Your task to perform on an android device: Find coffee shops on Maps Image 0: 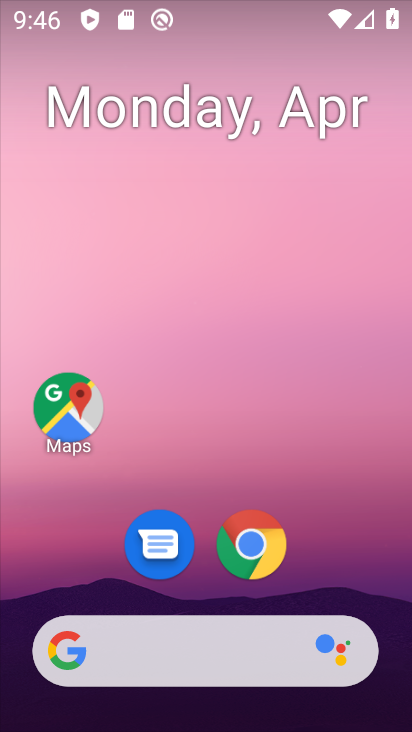
Step 0: drag from (285, 557) to (346, 216)
Your task to perform on an android device: Find coffee shops on Maps Image 1: 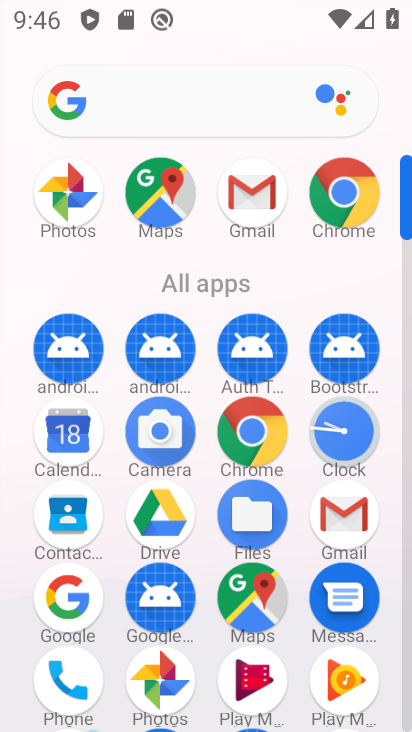
Step 1: click (243, 581)
Your task to perform on an android device: Find coffee shops on Maps Image 2: 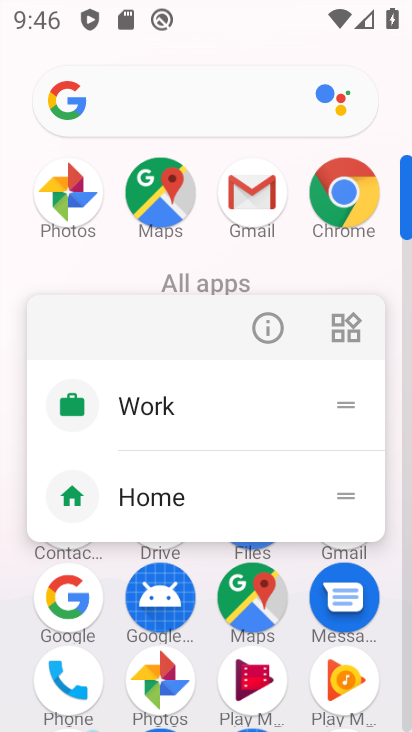
Step 2: click (244, 580)
Your task to perform on an android device: Find coffee shops on Maps Image 3: 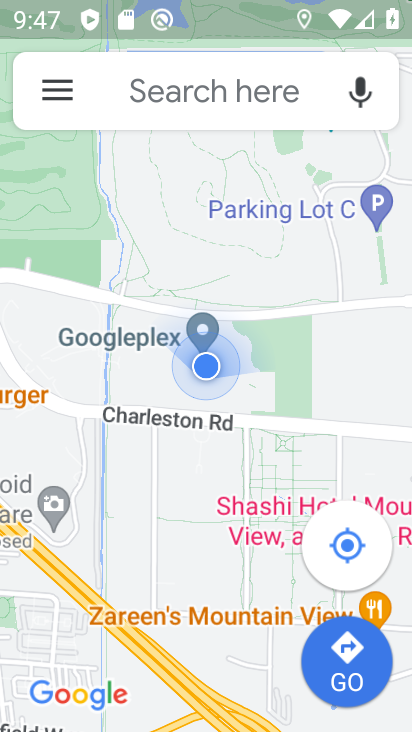
Step 3: click (150, 89)
Your task to perform on an android device: Find coffee shops on Maps Image 4: 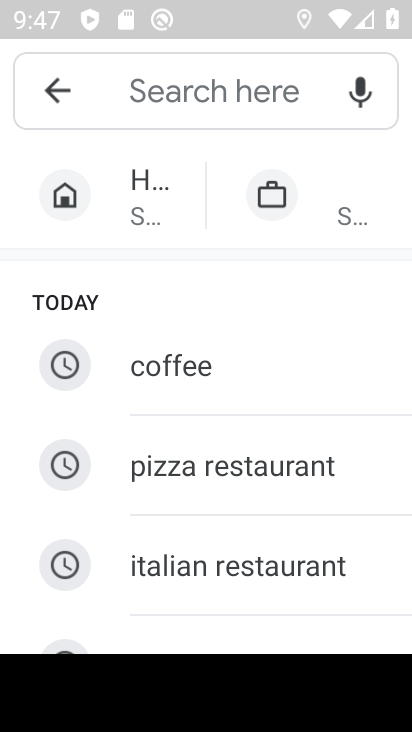
Step 4: type "coffee shops "
Your task to perform on an android device: Find coffee shops on Maps Image 5: 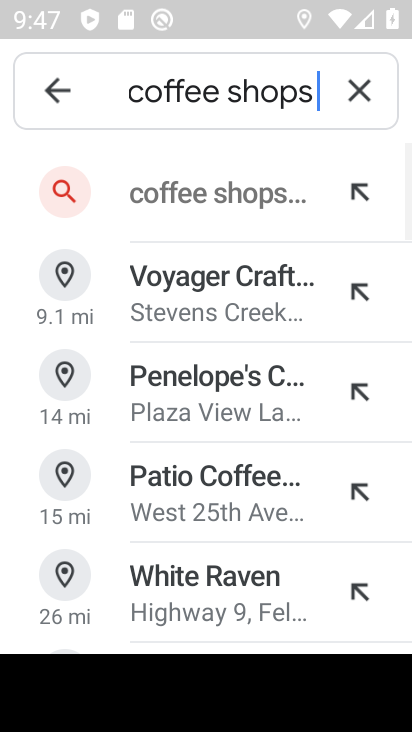
Step 5: click (274, 187)
Your task to perform on an android device: Find coffee shops on Maps Image 6: 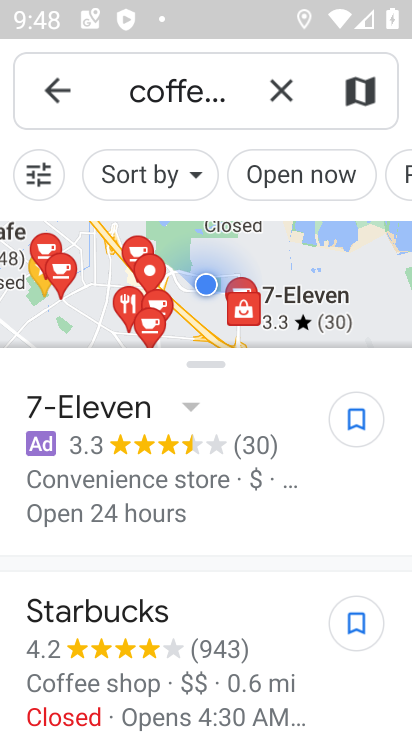
Step 6: click (155, 408)
Your task to perform on an android device: Find coffee shops on Maps Image 7: 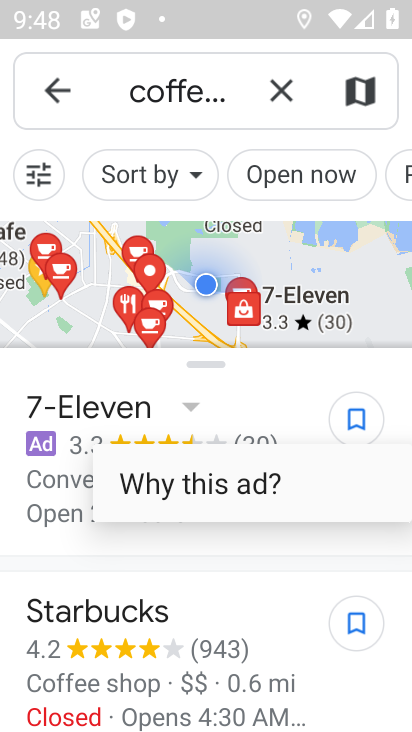
Step 7: task complete